Your task to perform on an android device: Search for Italian restaurants on Maps Image 0: 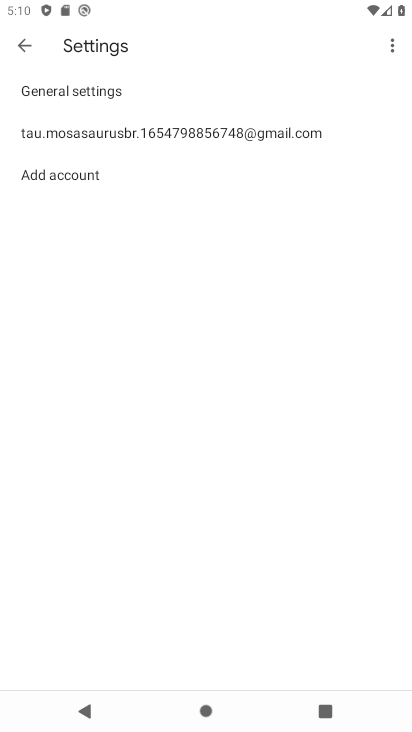
Step 0: press home button
Your task to perform on an android device: Search for Italian restaurants on Maps Image 1: 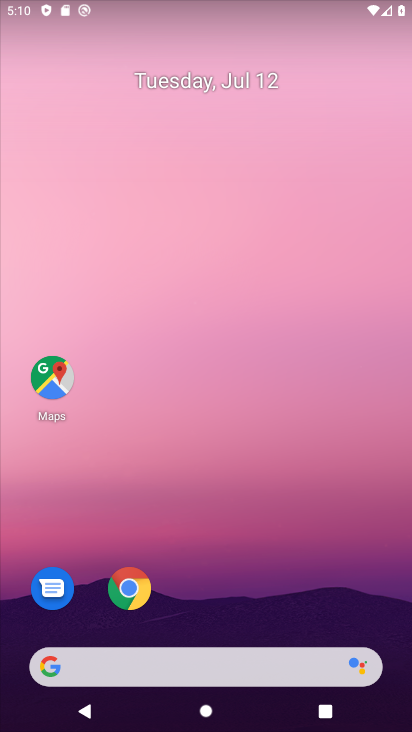
Step 1: drag from (301, 526) to (296, 152)
Your task to perform on an android device: Search for Italian restaurants on Maps Image 2: 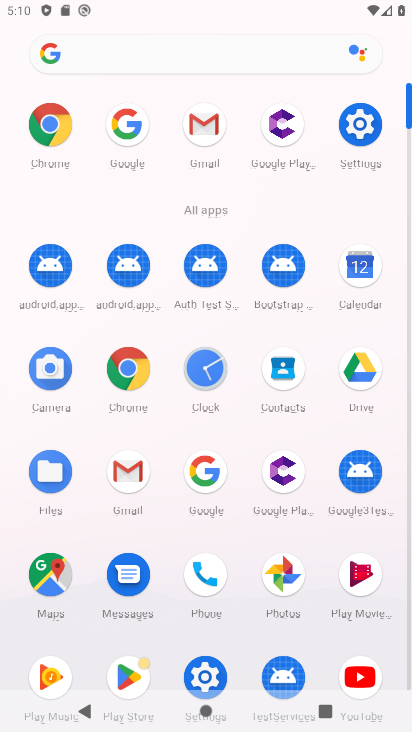
Step 2: click (54, 568)
Your task to perform on an android device: Search for Italian restaurants on Maps Image 3: 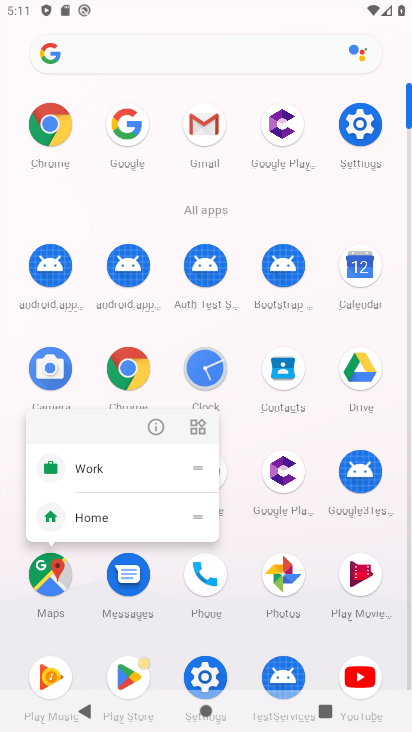
Step 3: click (54, 573)
Your task to perform on an android device: Search for Italian restaurants on Maps Image 4: 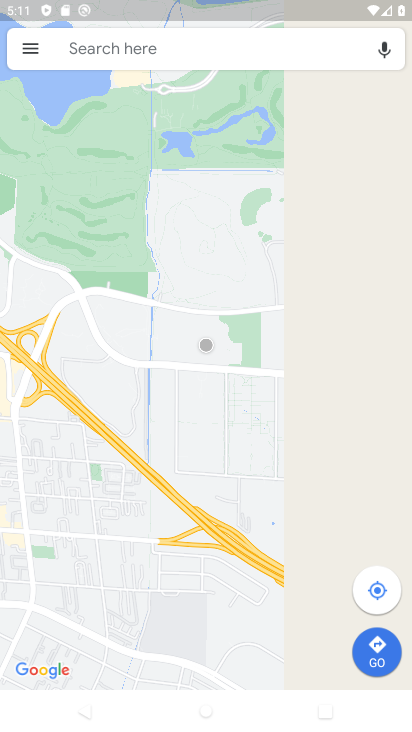
Step 4: click (213, 59)
Your task to perform on an android device: Search for Italian restaurants on Maps Image 5: 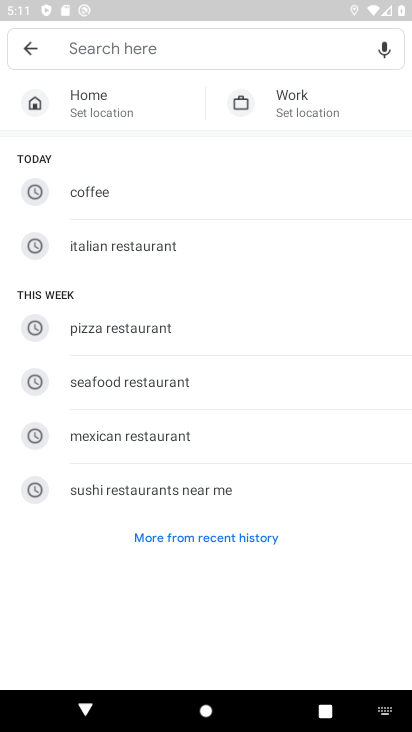
Step 5: click (88, 248)
Your task to perform on an android device: Search for Italian restaurants on Maps Image 6: 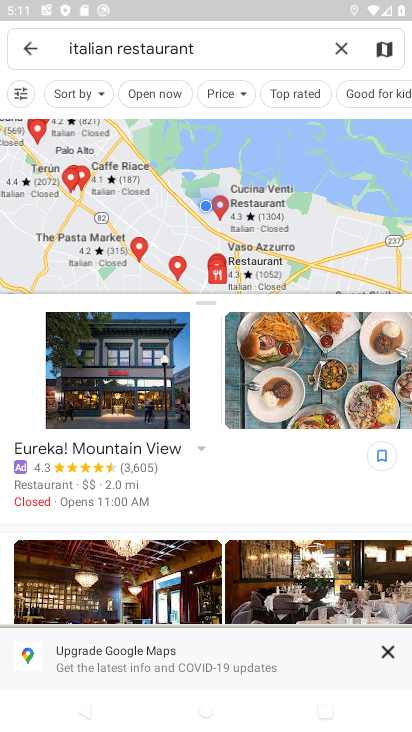
Step 6: task complete